Your task to perform on an android device: open a bookmark in the chrome app Image 0: 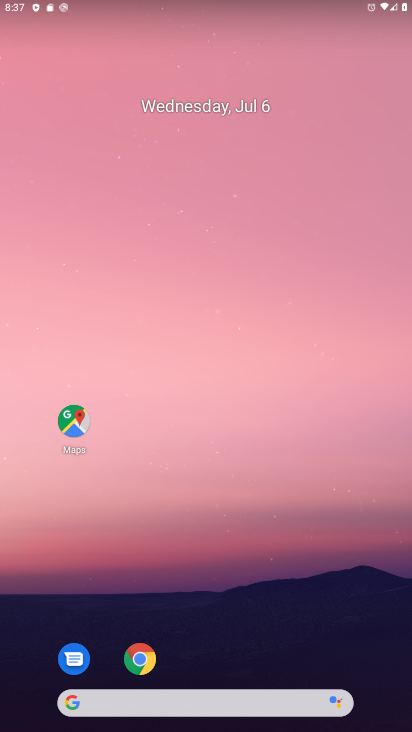
Step 0: drag from (243, 645) to (305, 11)
Your task to perform on an android device: open a bookmark in the chrome app Image 1: 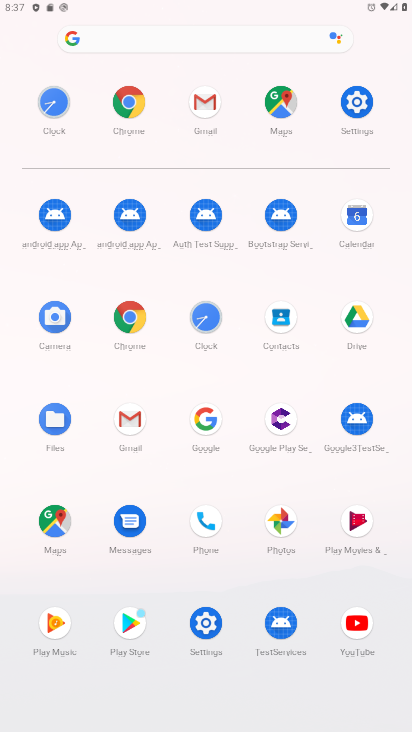
Step 1: click (119, 313)
Your task to perform on an android device: open a bookmark in the chrome app Image 2: 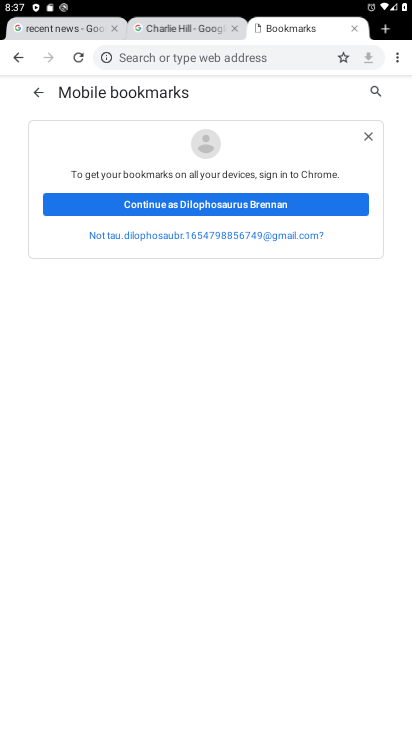
Step 2: click (397, 62)
Your task to perform on an android device: open a bookmark in the chrome app Image 3: 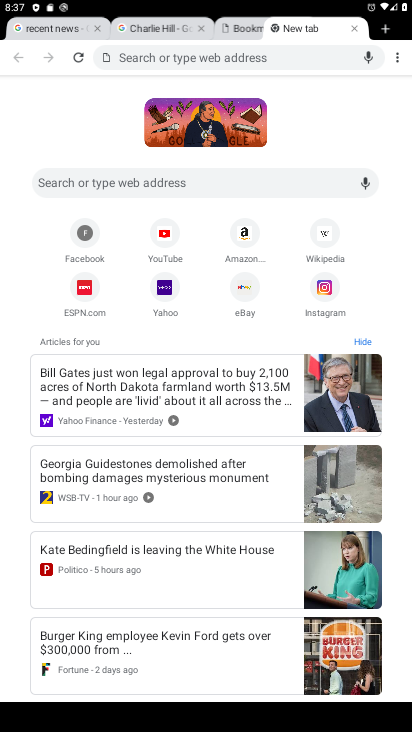
Step 3: click (392, 51)
Your task to perform on an android device: open a bookmark in the chrome app Image 4: 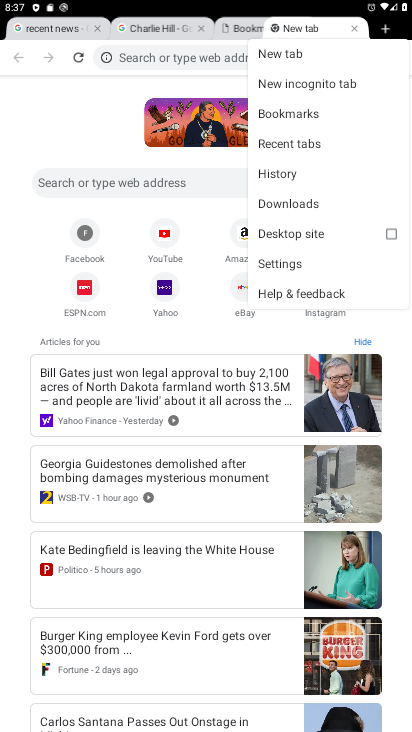
Step 4: click (298, 114)
Your task to perform on an android device: open a bookmark in the chrome app Image 5: 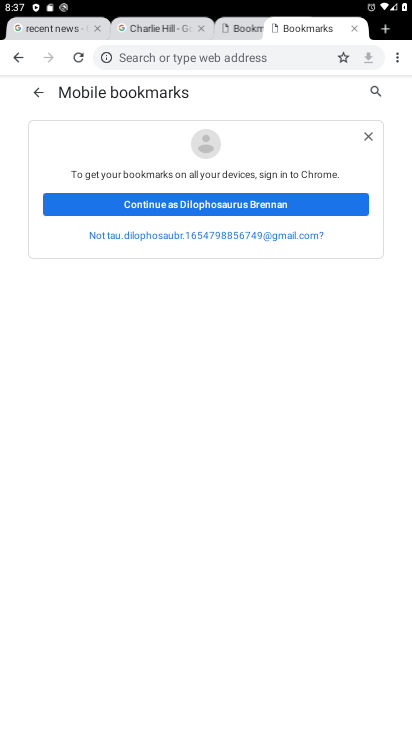
Step 5: task complete